Your task to perform on an android device: What's the weather? Image 0: 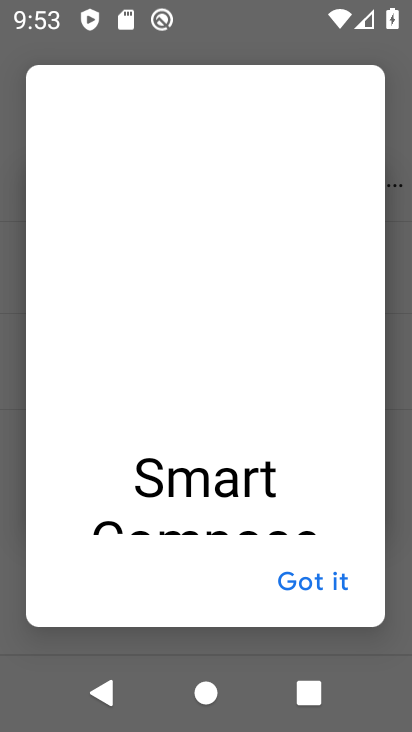
Step 0: press home button
Your task to perform on an android device: What's the weather? Image 1: 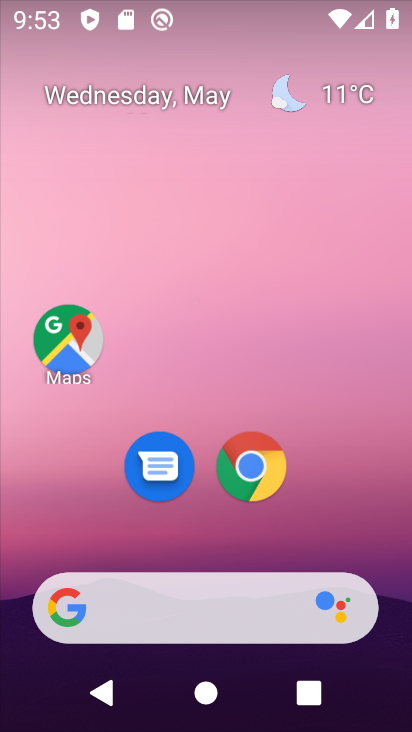
Step 1: click (76, 317)
Your task to perform on an android device: What's the weather? Image 2: 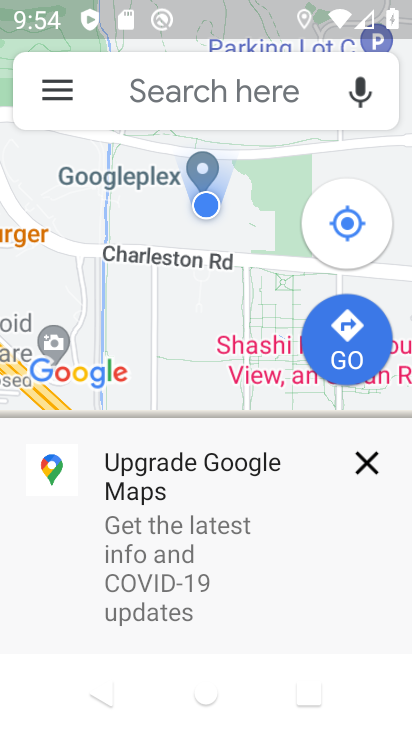
Step 2: click (371, 465)
Your task to perform on an android device: What's the weather? Image 3: 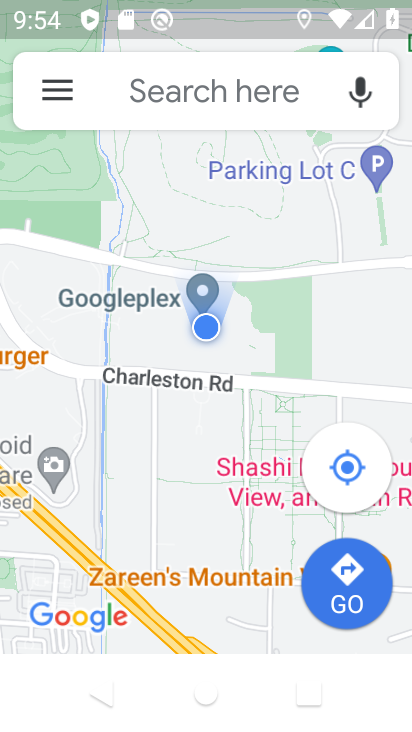
Step 3: task complete